Your task to perform on an android device: change notification settings in the gmail app Image 0: 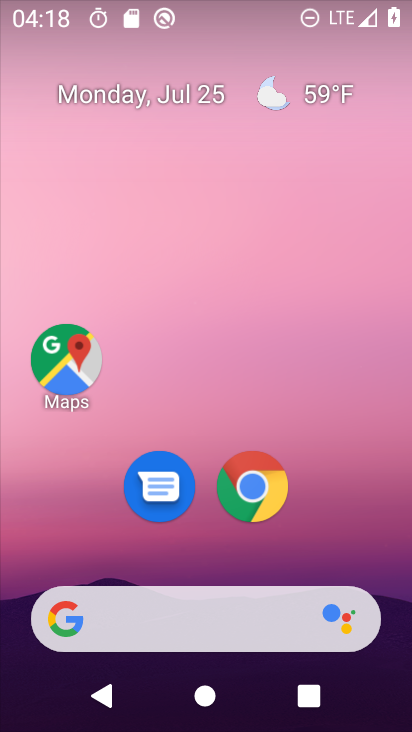
Step 0: drag from (209, 555) to (239, 17)
Your task to perform on an android device: change notification settings in the gmail app Image 1: 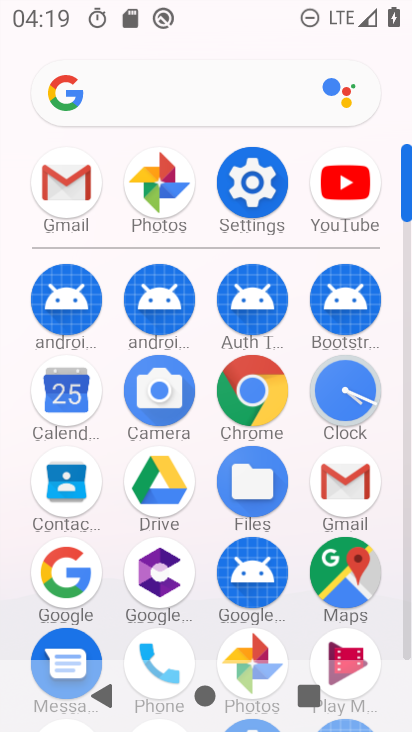
Step 1: click (59, 179)
Your task to perform on an android device: change notification settings in the gmail app Image 2: 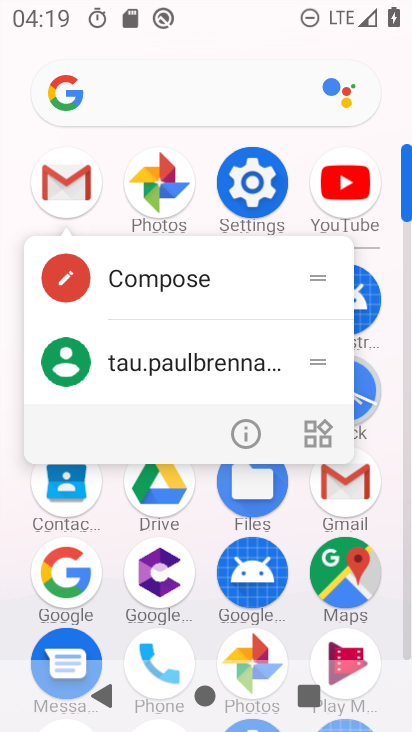
Step 2: click (246, 439)
Your task to perform on an android device: change notification settings in the gmail app Image 3: 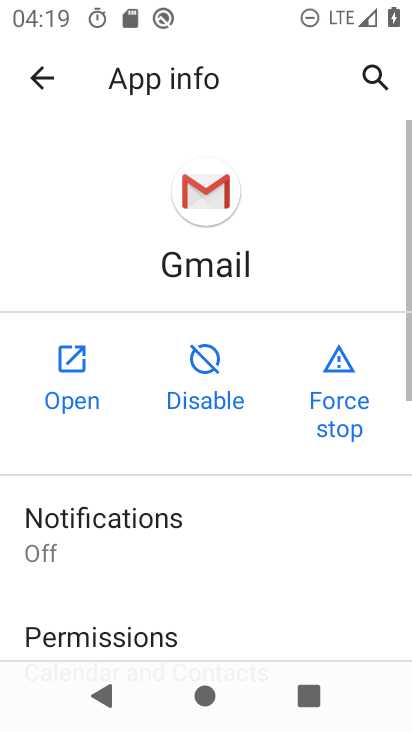
Step 3: drag from (162, 614) to (263, 101)
Your task to perform on an android device: change notification settings in the gmail app Image 4: 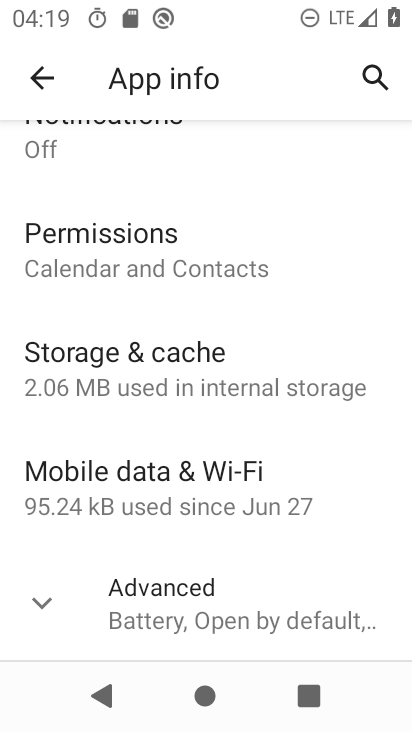
Step 4: drag from (161, 165) to (155, 581)
Your task to perform on an android device: change notification settings in the gmail app Image 5: 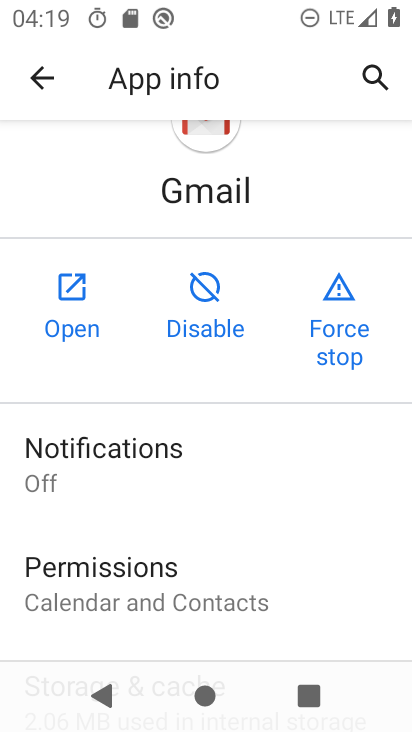
Step 5: click (151, 464)
Your task to perform on an android device: change notification settings in the gmail app Image 6: 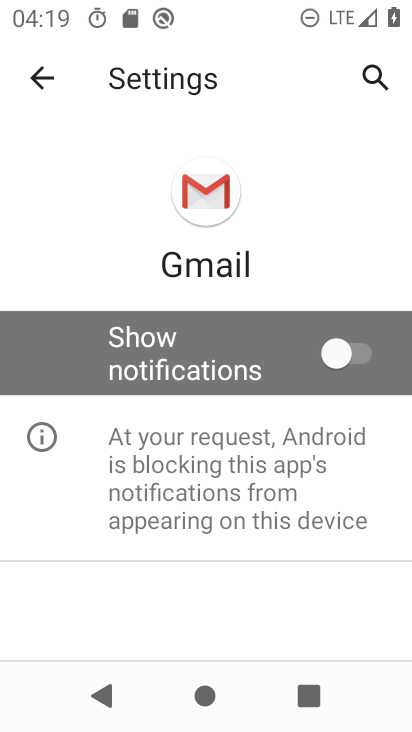
Step 6: drag from (158, 567) to (212, 252)
Your task to perform on an android device: change notification settings in the gmail app Image 7: 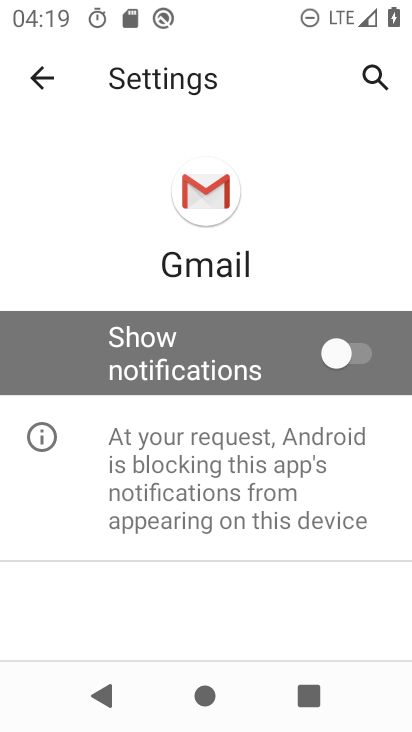
Step 7: click (358, 348)
Your task to perform on an android device: change notification settings in the gmail app Image 8: 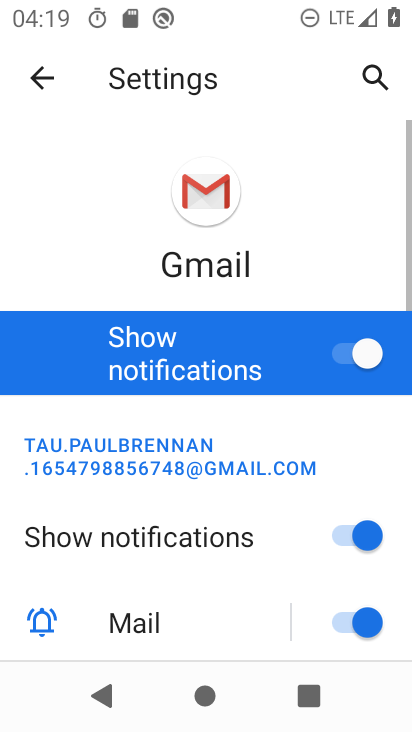
Step 8: task complete